Your task to perform on an android device: Go to calendar. Show me events next week Image 0: 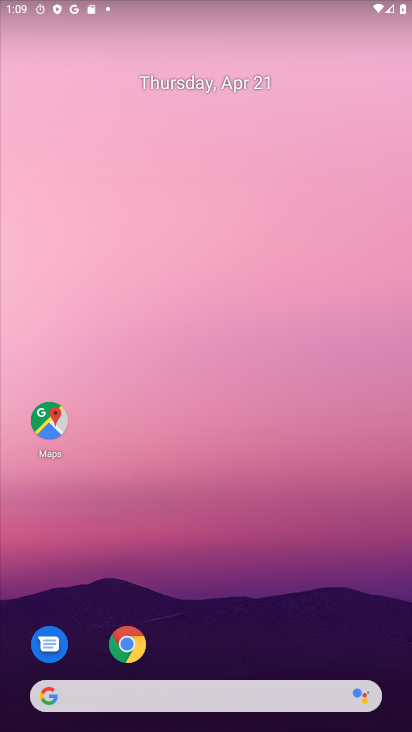
Step 0: drag from (260, 639) to (202, 227)
Your task to perform on an android device: Go to calendar. Show me events next week Image 1: 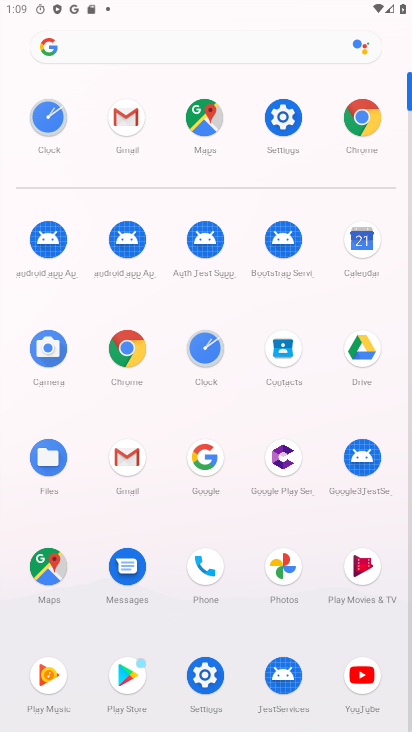
Step 1: click (370, 255)
Your task to perform on an android device: Go to calendar. Show me events next week Image 2: 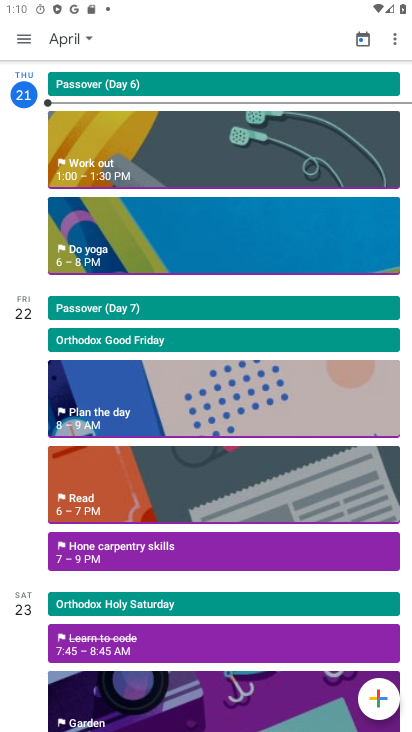
Step 2: click (25, 36)
Your task to perform on an android device: Go to calendar. Show me events next week Image 3: 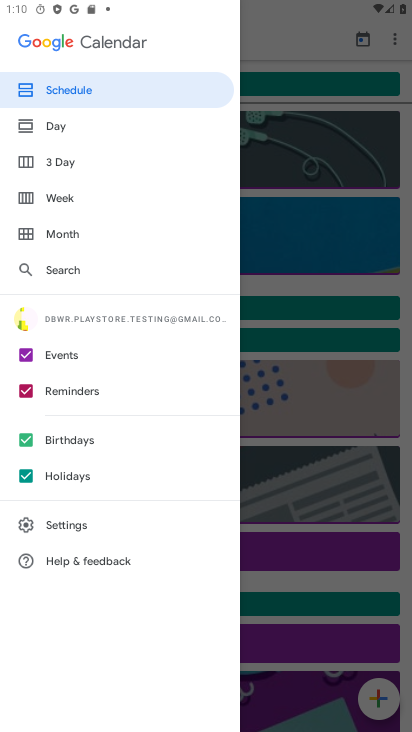
Step 3: click (113, 201)
Your task to perform on an android device: Go to calendar. Show me events next week Image 4: 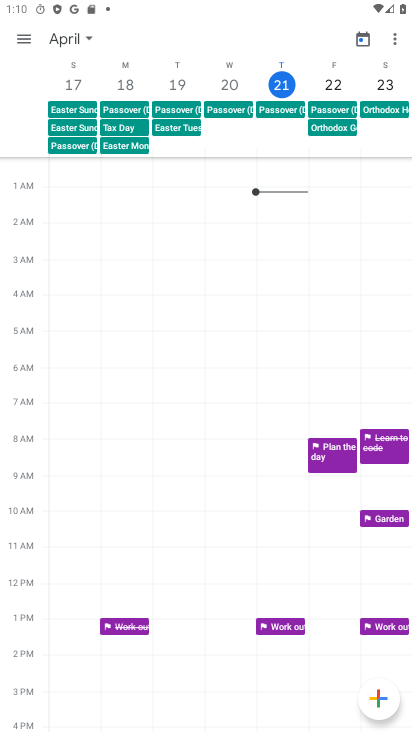
Step 4: click (97, 43)
Your task to perform on an android device: Go to calendar. Show me events next week Image 5: 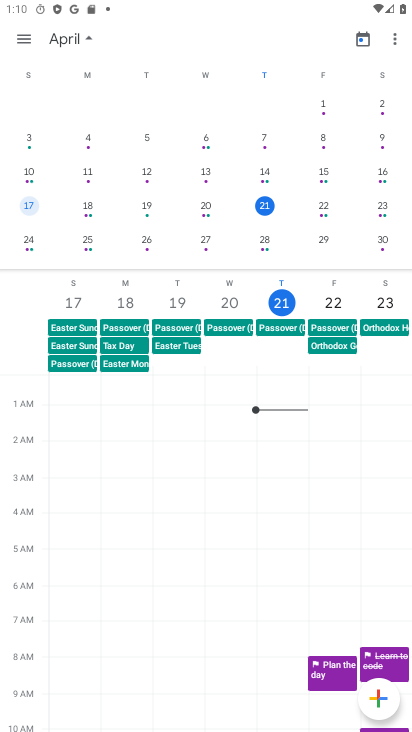
Step 5: click (210, 247)
Your task to perform on an android device: Go to calendar. Show me events next week Image 6: 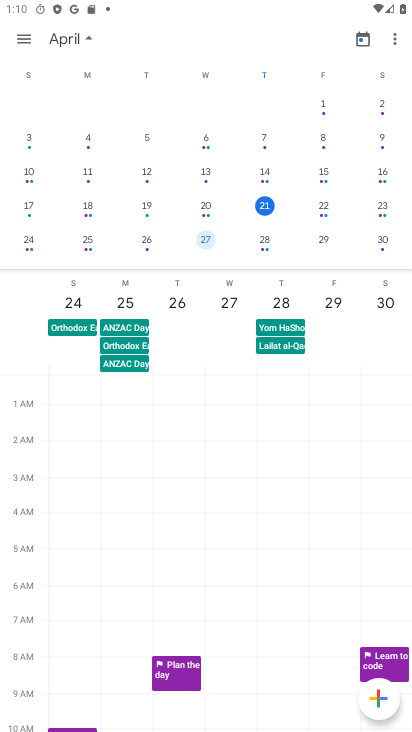
Step 6: click (83, 35)
Your task to perform on an android device: Go to calendar. Show me events next week Image 7: 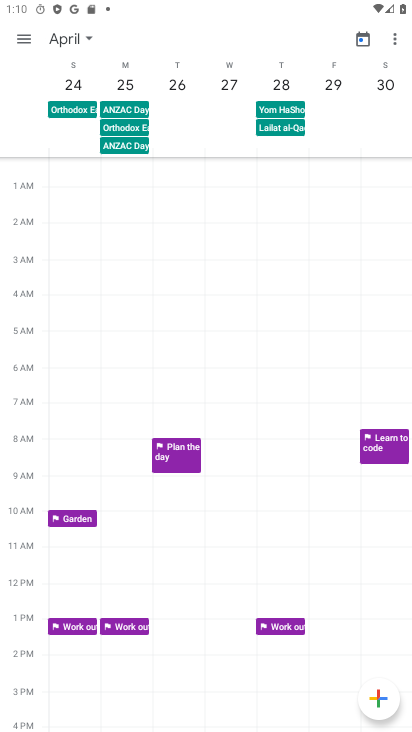
Step 7: task complete